Your task to perform on an android device: turn on notifications settings in the gmail app Image 0: 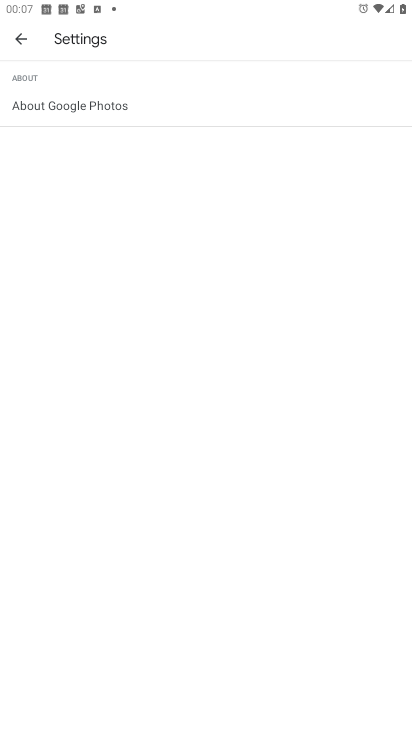
Step 0: press home button
Your task to perform on an android device: turn on notifications settings in the gmail app Image 1: 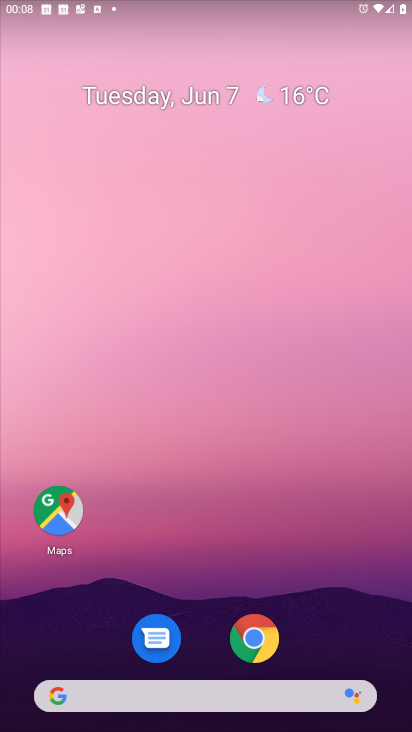
Step 1: drag from (204, 707) to (294, 129)
Your task to perform on an android device: turn on notifications settings in the gmail app Image 2: 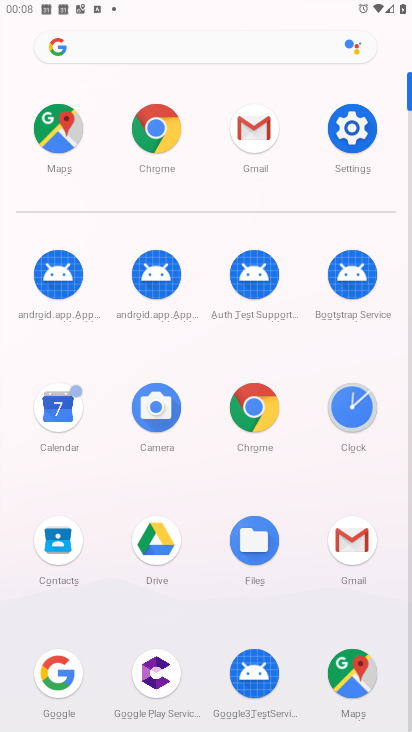
Step 2: click (248, 133)
Your task to perform on an android device: turn on notifications settings in the gmail app Image 3: 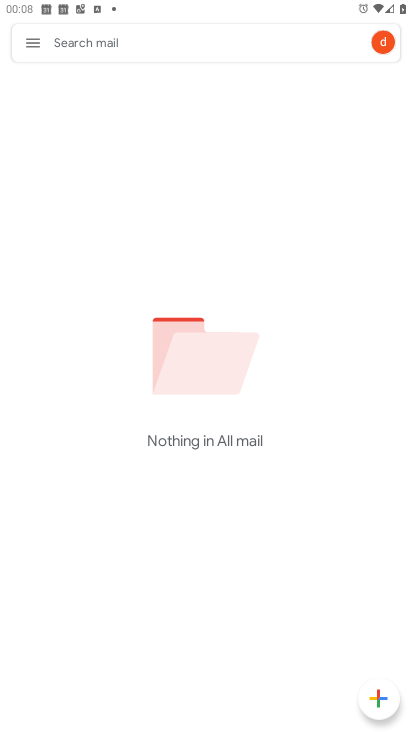
Step 3: click (21, 52)
Your task to perform on an android device: turn on notifications settings in the gmail app Image 4: 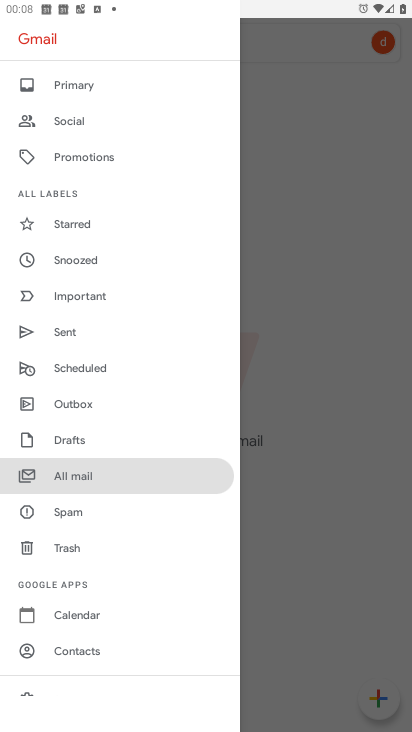
Step 4: drag from (90, 611) to (85, 546)
Your task to perform on an android device: turn on notifications settings in the gmail app Image 5: 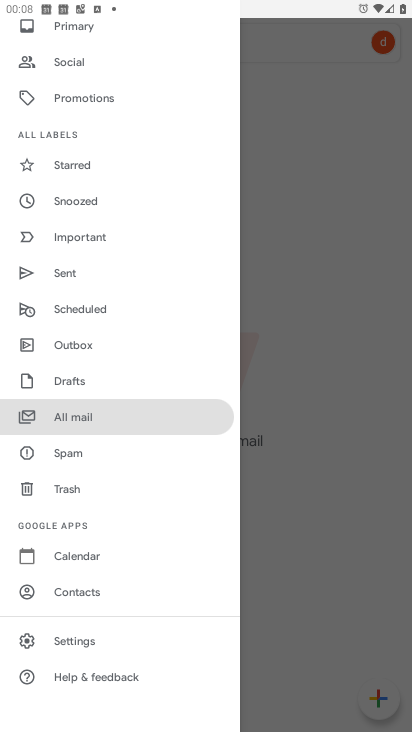
Step 5: click (94, 641)
Your task to perform on an android device: turn on notifications settings in the gmail app Image 6: 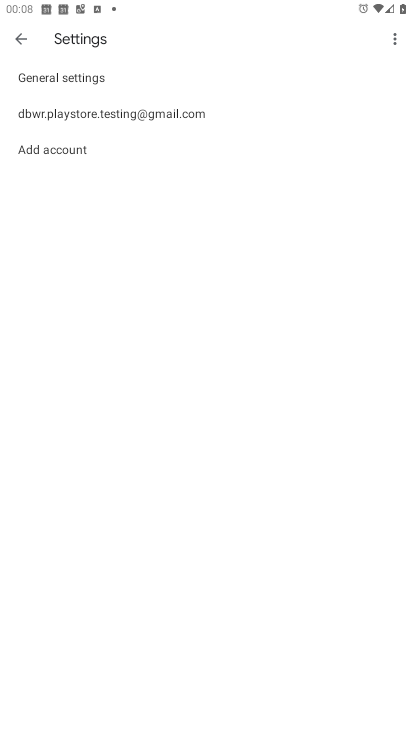
Step 6: click (98, 113)
Your task to perform on an android device: turn on notifications settings in the gmail app Image 7: 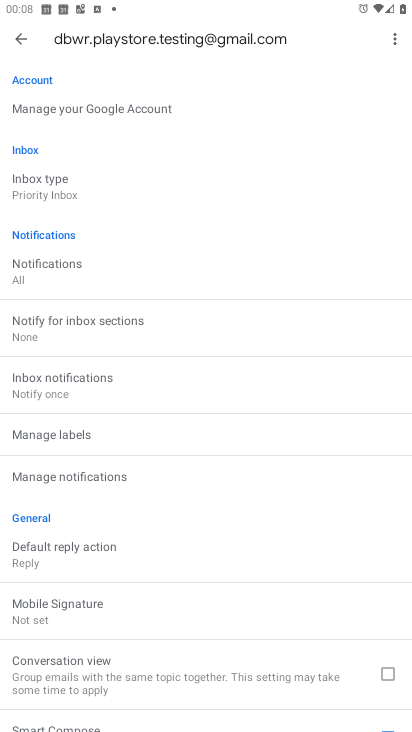
Step 7: click (54, 253)
Your task to perform on an android device: turn on notifications settings in the gmail app Image 8: 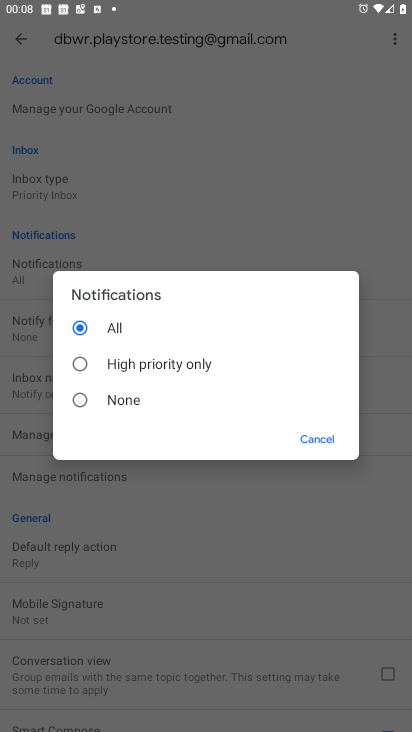
Step 8: task complete